Your task to perform on an android device: refresh tabs in the chrome app Image 0: 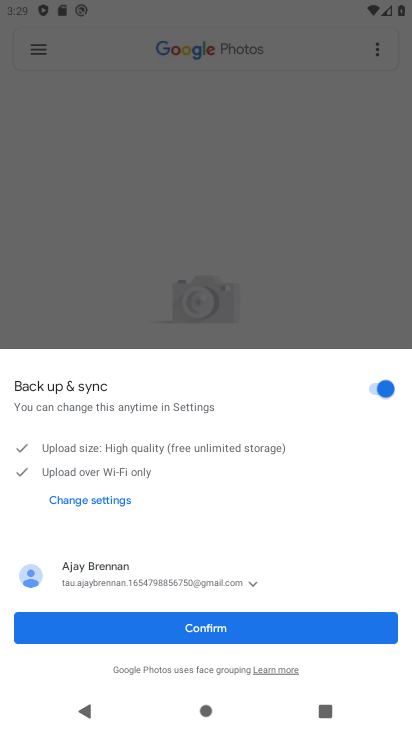
Step 0: press home button
Your task to perform on an android device: refresh tabs in the chrome app Image 1: 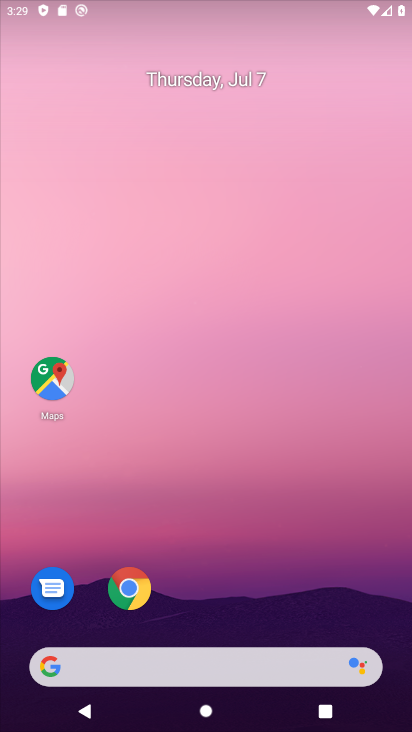
Step 1: drag from (235, 632) to (222, 117)
Your task to perform on an android device: refresh tabs in the chrome app Image 2: 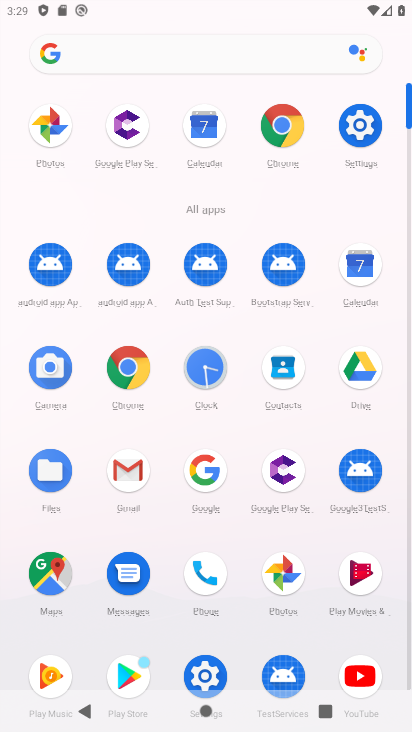
Step 2: click (131, 391)
Your task to perform on an android device: refresh tabs in the chrome app Image 3: 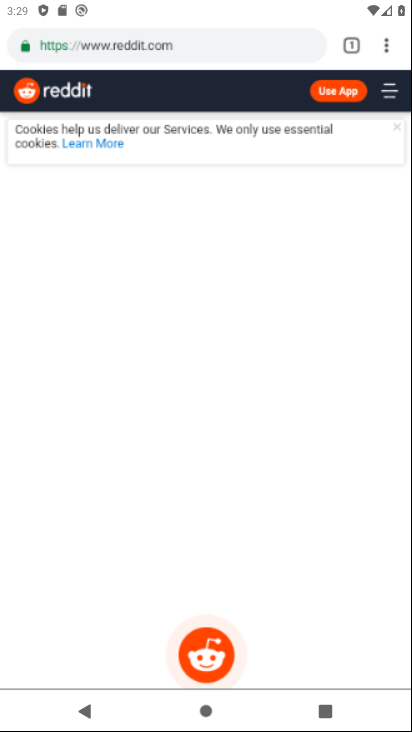
Step 3: click (382, 48)
Your task to perform on an android device: refresh tabs in the chrome app Image 4: 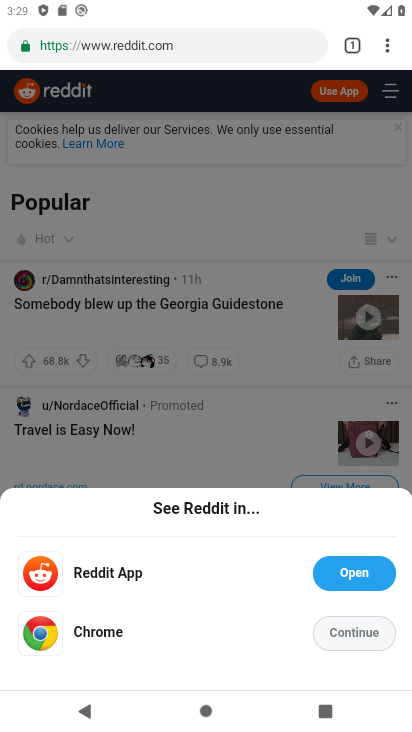
Step 4: click (388, 44)
Your task to perform on an android device: refresh tabs in the chrome app Image 5: 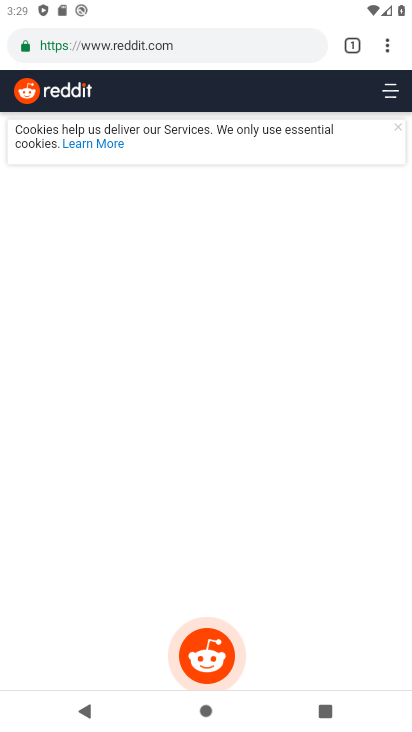
Step 5: task complete